Your task to perform on an android device: Play the last video I watched on Youtube Image 0: 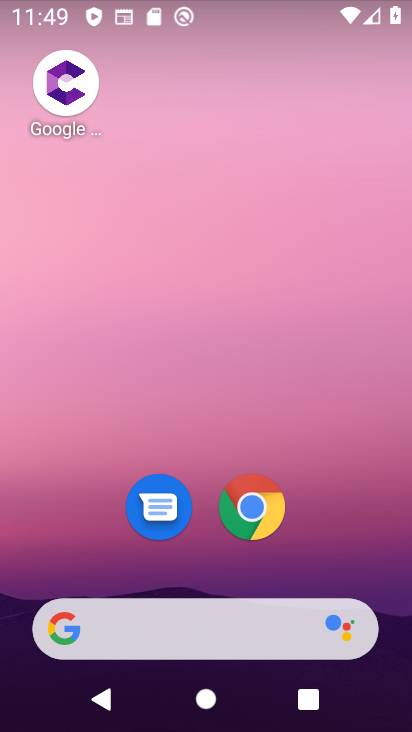
Step 0: drag from (356, 456) to (355, 185)
Your task to perform on an android device: Play the last video I watched on Youtube Image 1: 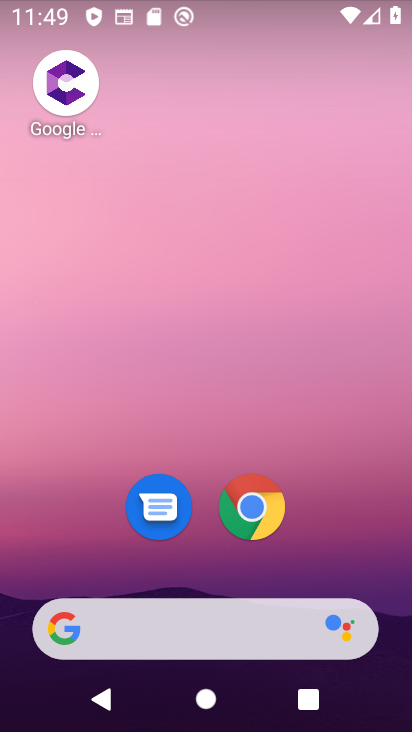
Step 1: drag from (336, 542) to (330, 129)
Your task to perform on an android device: Play the last video I watched on Youtube Image 2: 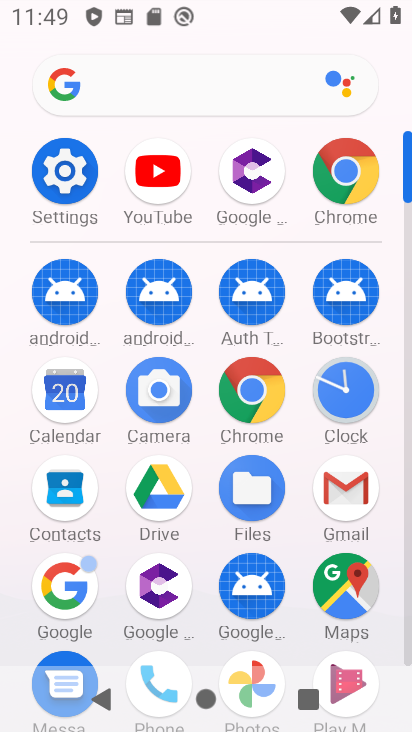
Step 2: click (158, 179)
Your task to perform on an android device: Play the last video I watched on Youtube Image 3: 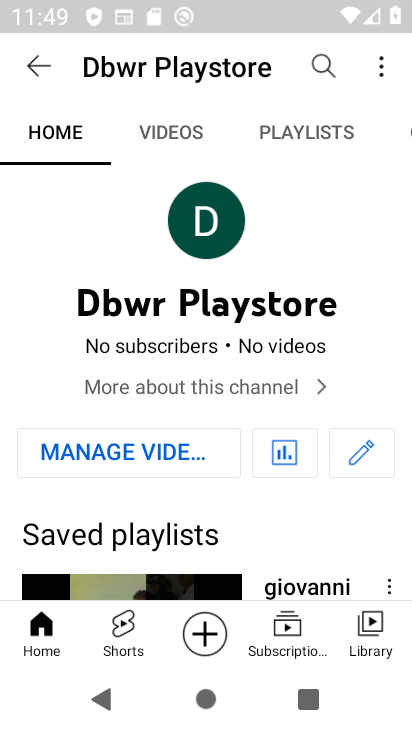
Step 3: click (308, 131)
Your task to perform on an android device: Play the last video I watched on Youtube Image 4: 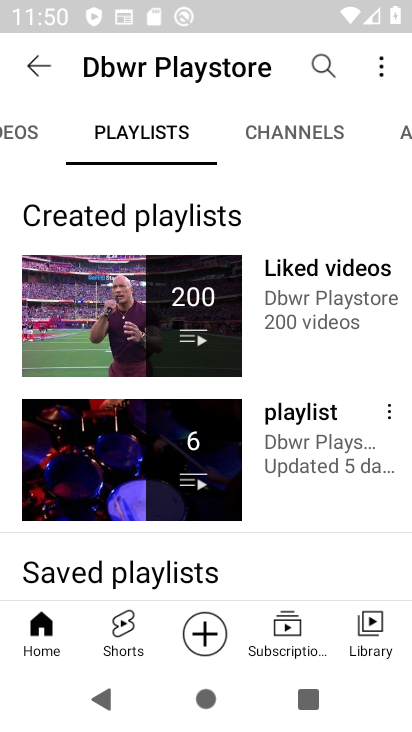
Step 4: click (112, 327)
Your task to perform on an android device: Play the last video I watched on Youtube Image 5: 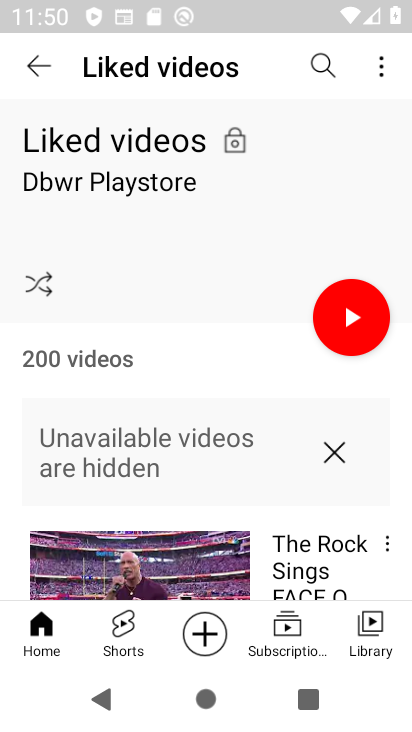
Step 5: drag from (209, 526) to (212, 270)
Your task to perform on an android device: Play the last video I watched on Youtube Image 6: 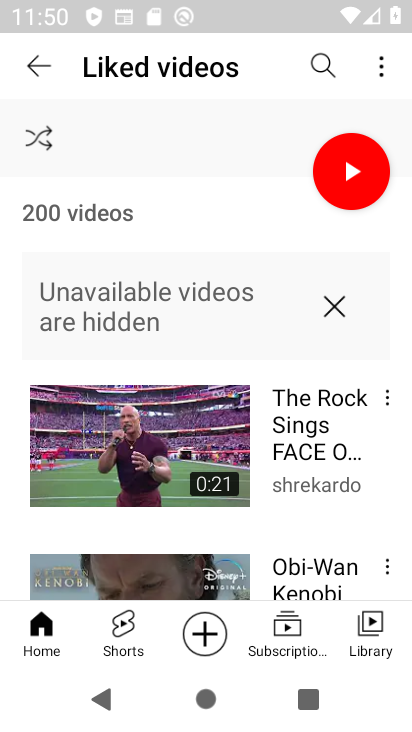
Step 6: click (110, 457)
Your task to perform on an android device: Play the last video I watched on Youtube Image 7: 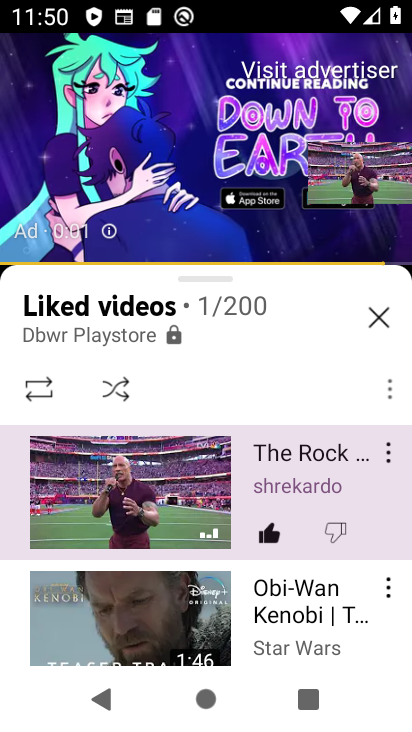
Step 7: task complete